Your task to perform on an android device: Go to Google Image 0: 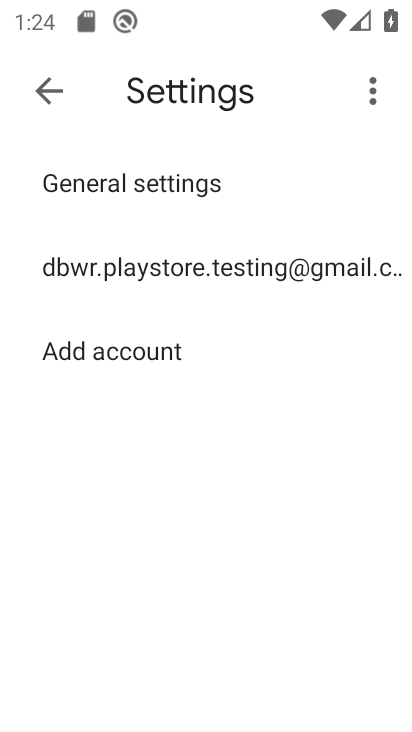
Step 0: press home button
Your task to perform on an android device: Go to Google Image 1: 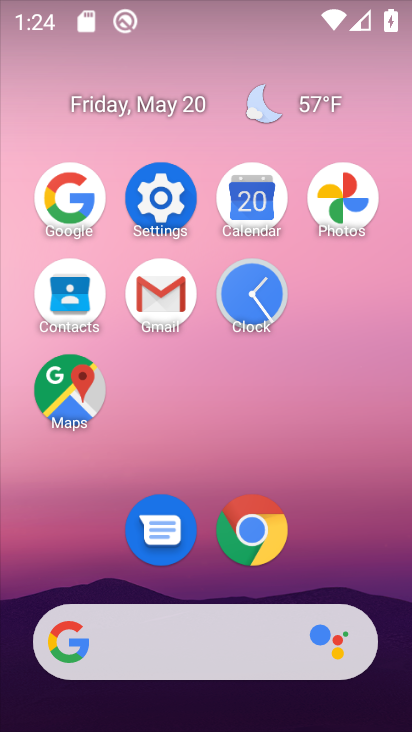
Step 1: click (71, 211)
Your task to perform on an android device: Go to Google Image 2: 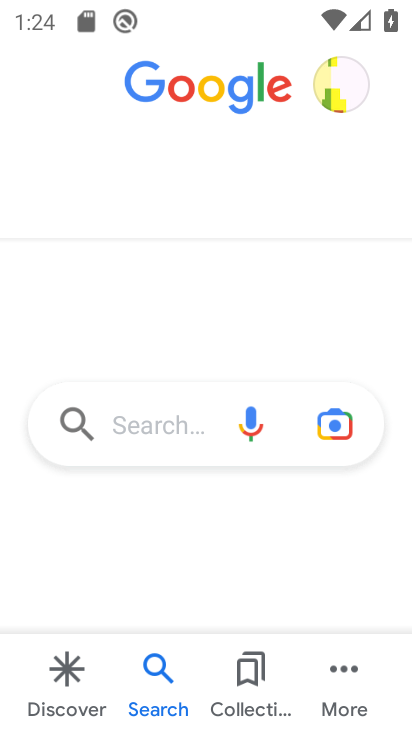
Step 2: task complete